Your task to perform on an android device: Open accessibility settings Image 0: 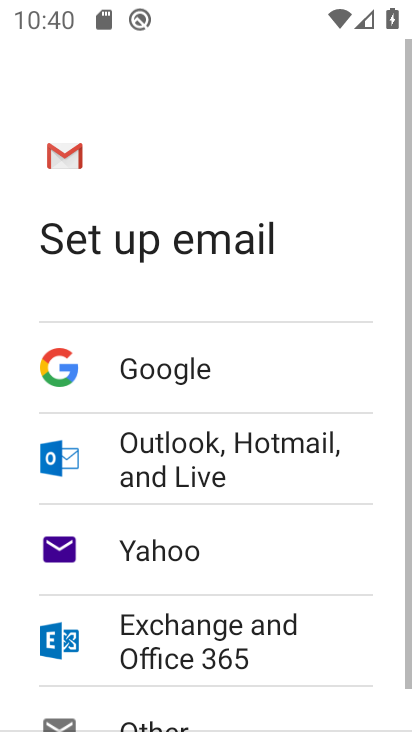
Step 0: press home button
Your task to perform on an android device: Open accessibility settings Image 1: 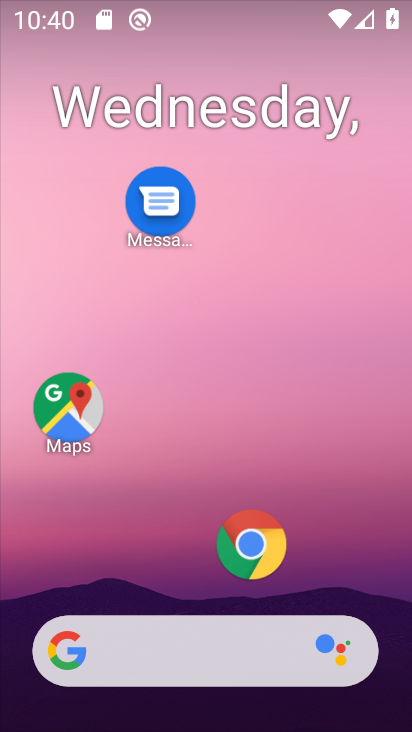
Step 1: drag from (169, 563) to (239, 144)
Your task to perform on an android device: Open accessibility settings Image 2: 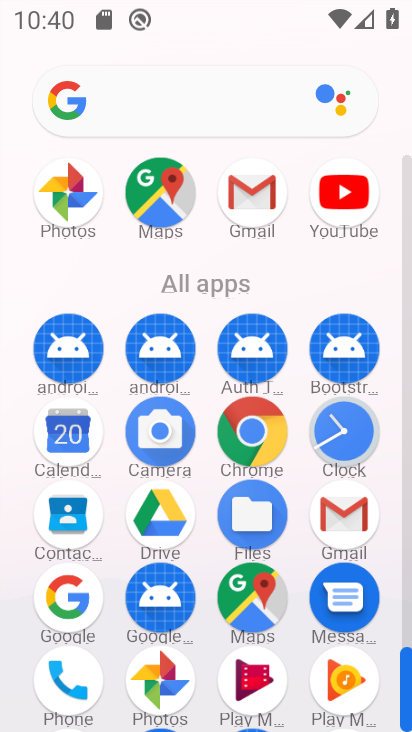
Step 2: drag from (195, 547) to (241, 201)
Your task to perform on an android device: Open accessibility settings Image 3: 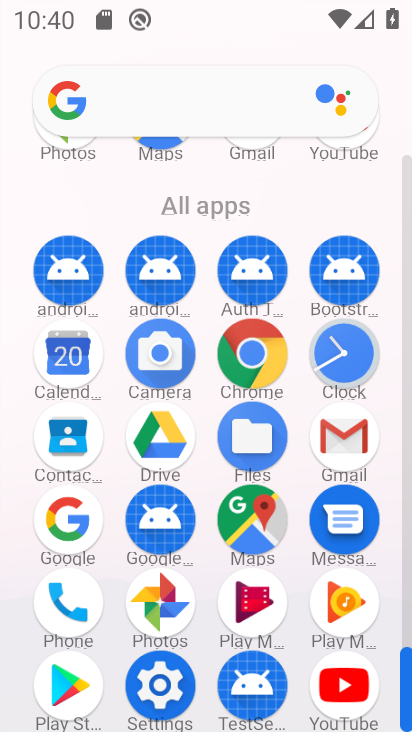
Step 3: click (157, 666)
Your task to perform on an android device: Open accessibility settings Image 4: 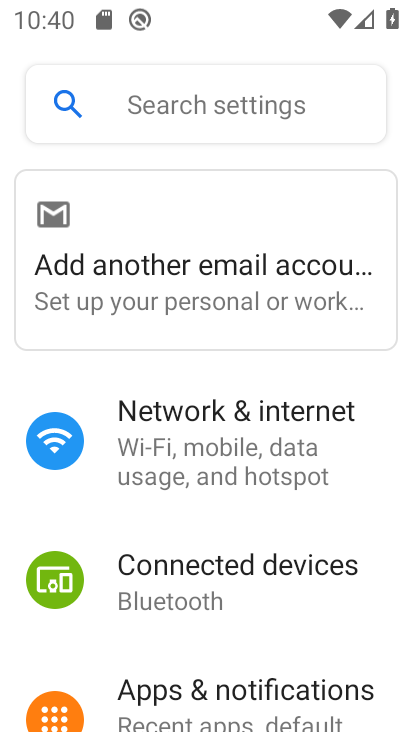
Step 4: drag from (227, 596) to (239, 255)
Your task to perform on an android device: Open accessibility settings Image 5: 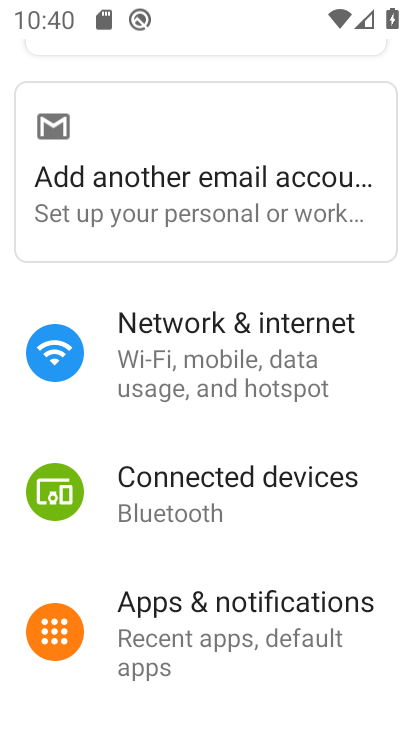
Step 5: drag from (249, 509) to (275, 256)
Your task to perform on an android device: Open accessibility settings Image 6: 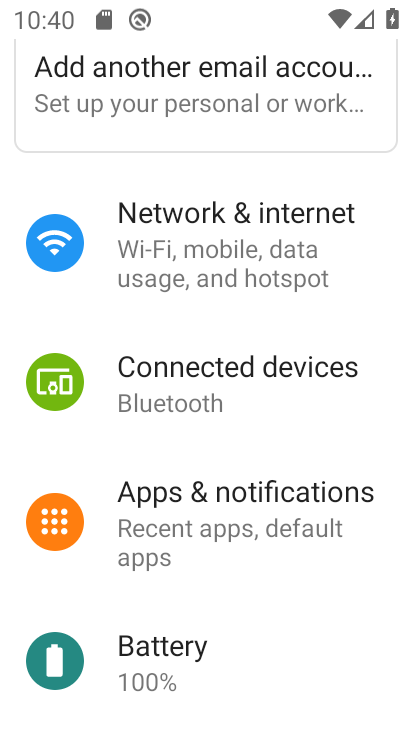
Step 6: drag from (251, 549) to (247, 175)
Your task to perform on an android device: Open accessibility settings Image 7: 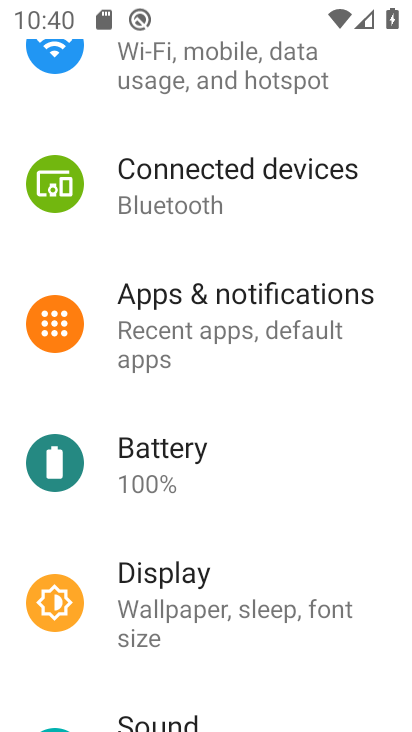
Step 7: drag from (244, 562) to (271, 277)
Your task to perform on an android device: Open accessibility settings Image 8: 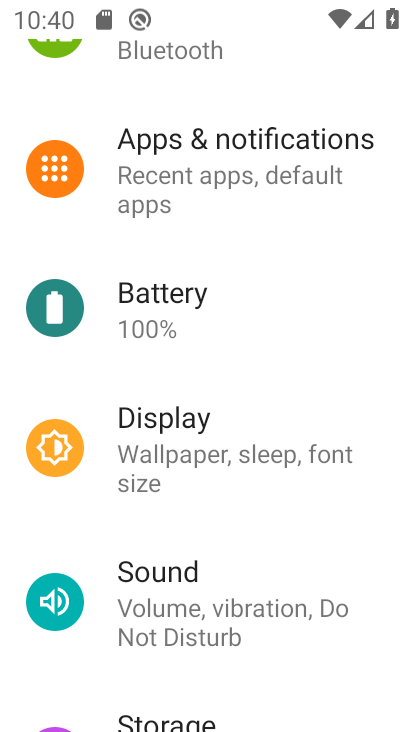
Step 8: drag from (268, 565) to (279, 316)
Your task to perform on an android device: Open accessibility settings Image 9: 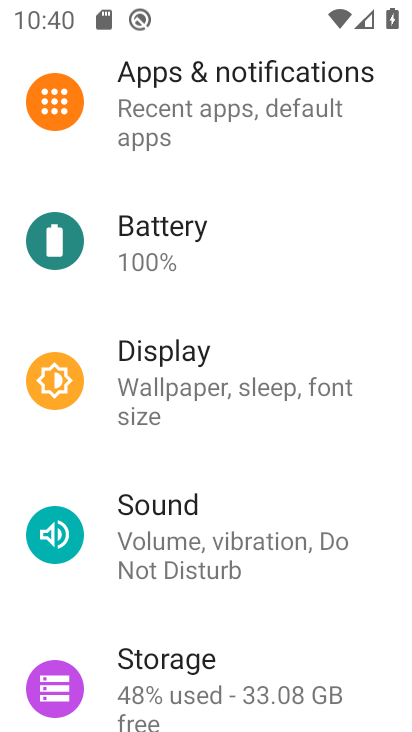
Step 9: drag from (284, 567) to (289, 304)
Your task to perform on an android device: Open accessibility settings Image 10: 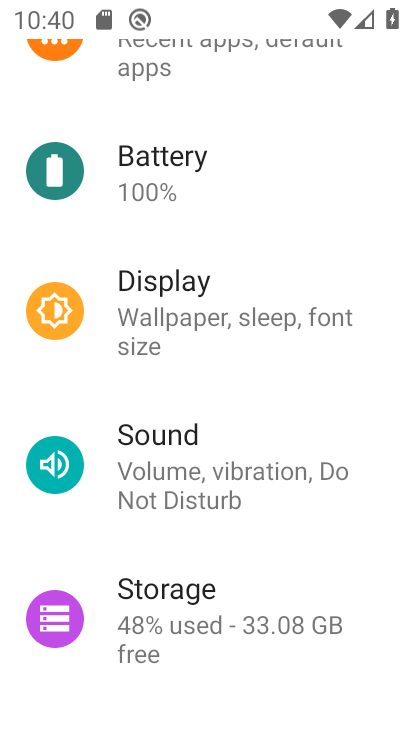
Step 10: drag from (281, 620) to (286, 325)
Your task to perform on an android device: Open accessibility settings Image 11: 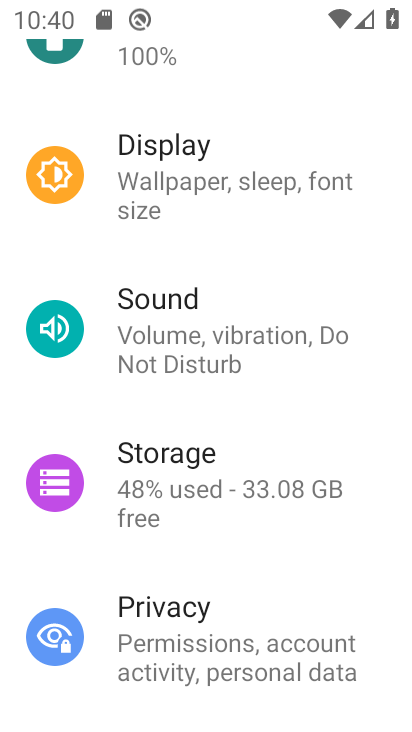
Step 11: drag from (283, 557) to (281, 264)
Your task to perform on an android device: Open accessibility settings Image 12: 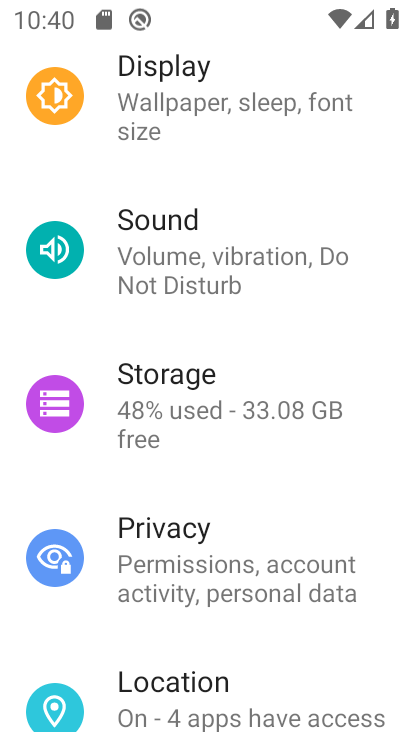
Step 12: drag from (259, 542) to (264, 318)
Your task to perform on an android device: Open accessibility settings Image 13: 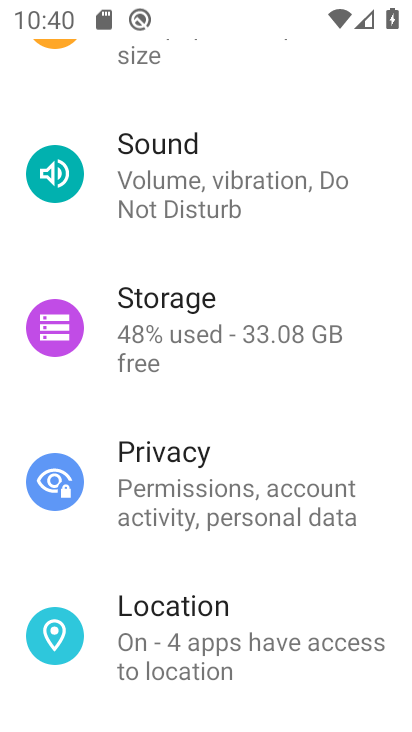
Step 13: drag from (272, 599) to (283, 318)
Your task to perform on an android device: Open accessibility settings Image 14: 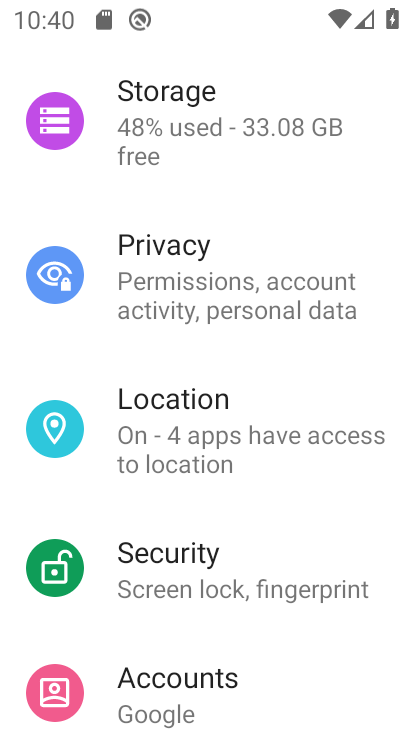
Step 14: drag from (276, 609) to (278, 377)
Your task to perform on an android device: Open accessibility settings Image 15: 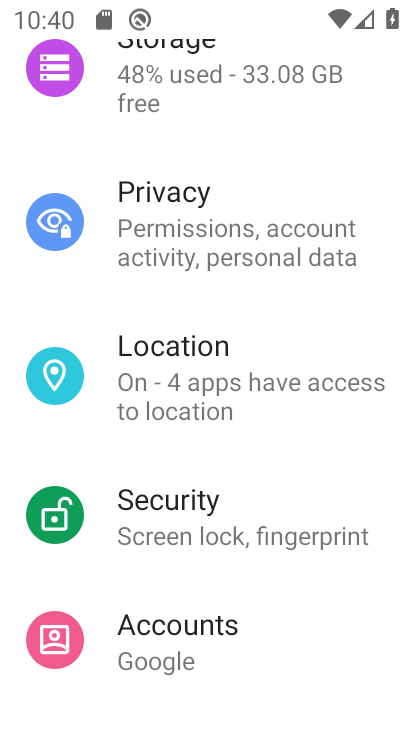
Step 15: drag from (267, 575) to (253, 317)
Your task to perform on an android device: Open accessibility settings Image 16: 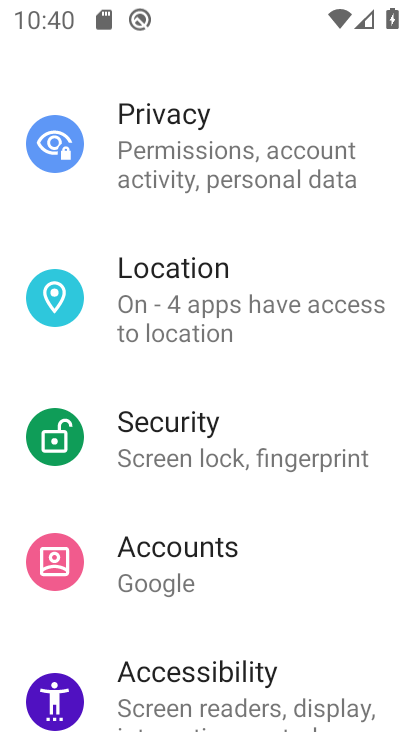
Step 16: click (222, 672)
Your task to perform on an android device: Open accessibility settings Image 17: 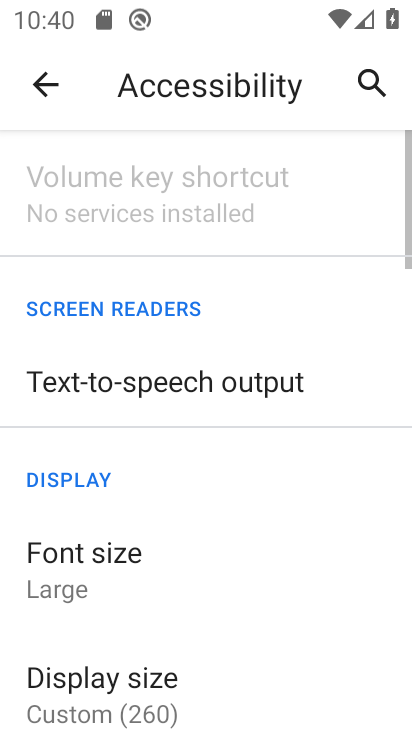
Step 17: task complete